Your task to perform on an android device: Show me popular games on the Play Store Image 0: 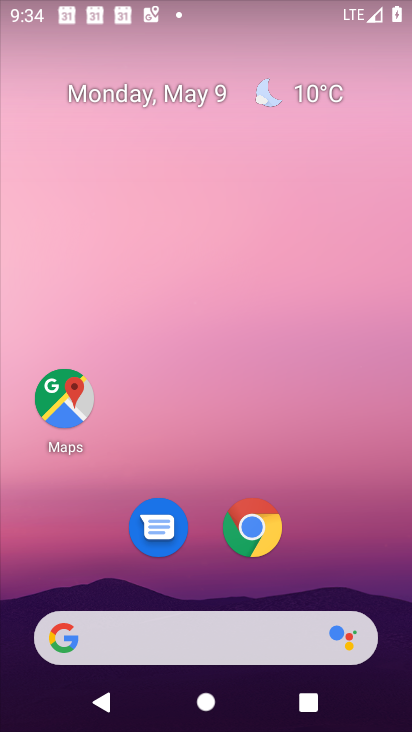
Step 0: drag from (202, 600) to (296, 73)
Your task to perform on an android device: Show me popular games on the Play Store Image 1: 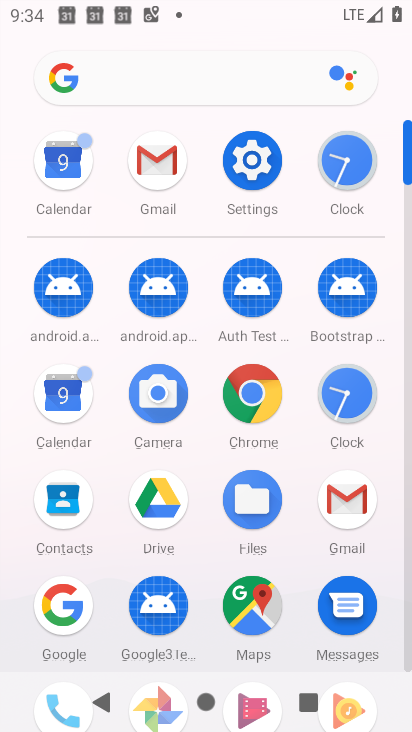
Step 1: drag from (210, 572) to (233, 159)
Your task to perform on an android device: Show me popular games on the Play Store Image 2: 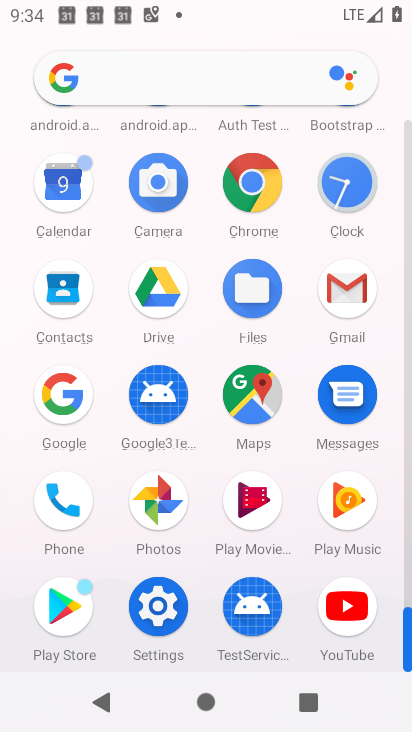
Step 2: click (65, 602)
Your task to perform on an android device: Show me popular games on the Play Store Image 3: 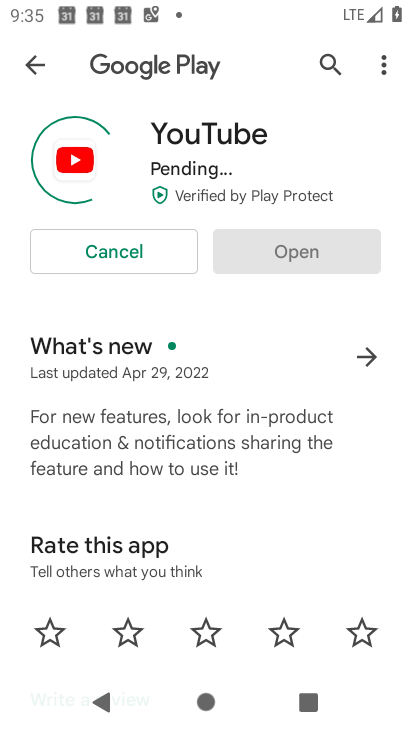
Step 3: click (110, 255)
Your task to perform on an android device: Show me popular games on the Play Store Image 4: 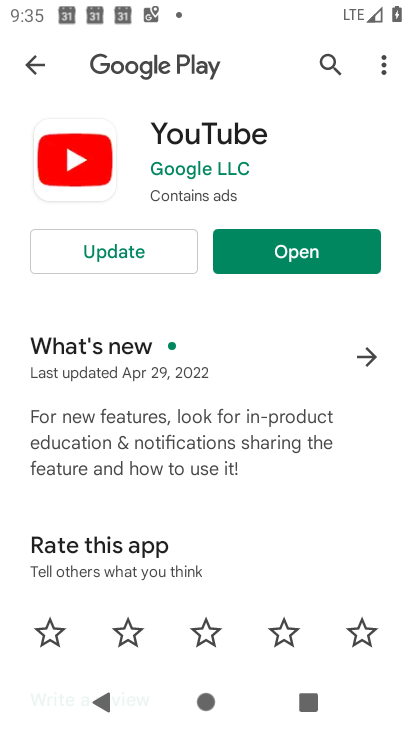
Step 4: click (41, 48)
Your task to perform on an android device: Show me popular games on the Play Store Image 5: 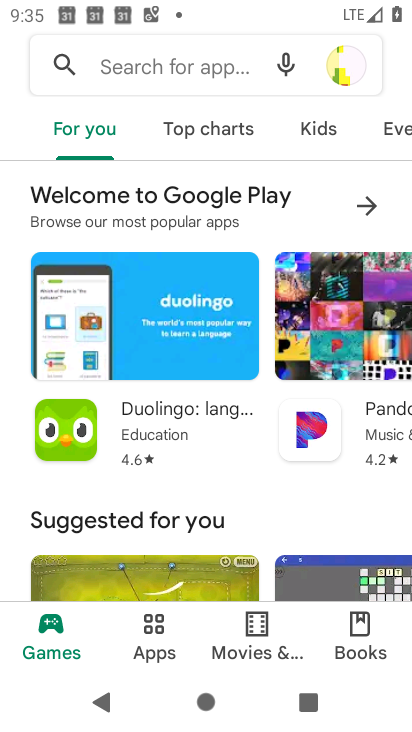
Step 5: drag from (217, 127) to (43, 92)
Your task to perform on an android device: Show me popular games on the Play Store Image 6: 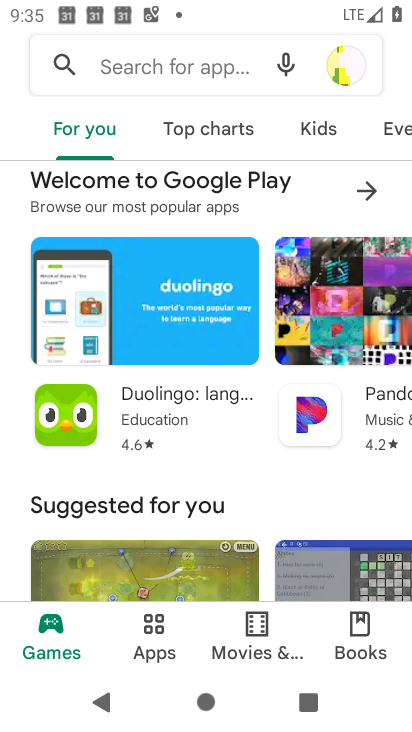
Step 6: click (223, 127)
Your task to perform on an android device: Show me popular games on the Play Store Image 7: 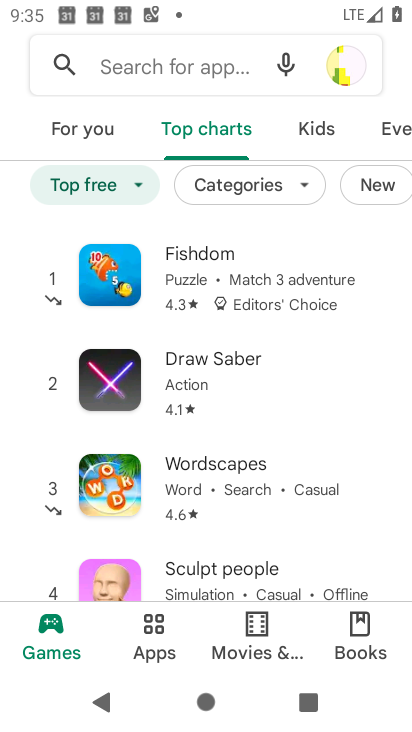
Step 7: task complete